Your task to perform on an android device: turn on airplane mode Image 0: 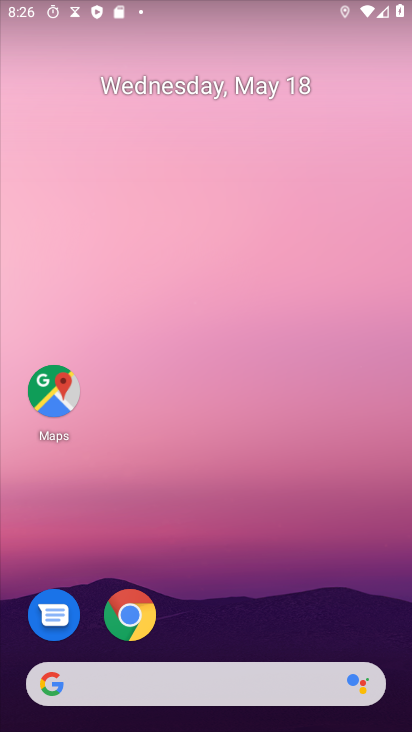
Step 0: drag from (273, 594) to (320, 83)
Your task to perform on an android device: turn on airplane mode Image 1: 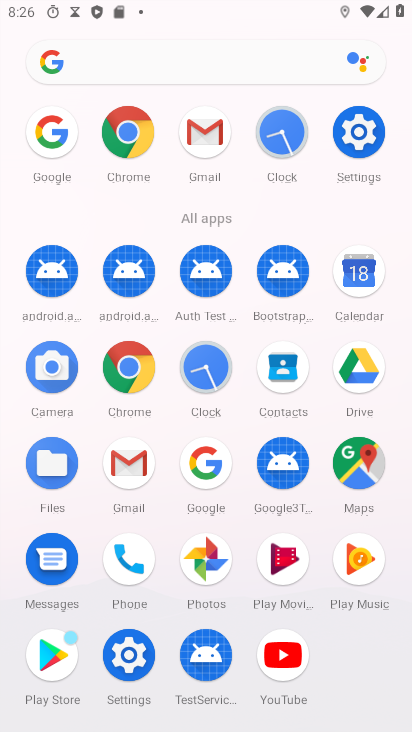
Step 1: click (357, 129)
Your task to perform on an android device: turn on airplane mode Image 2: 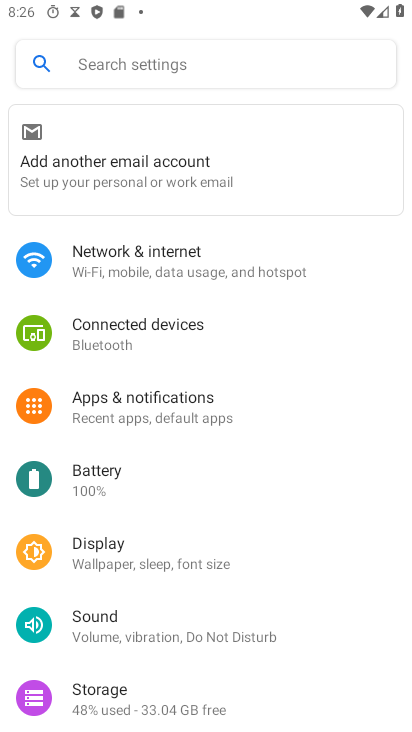
Step 2: click (195, 270)
Your task to perform on an android device: turn on airplane mode Image 3: 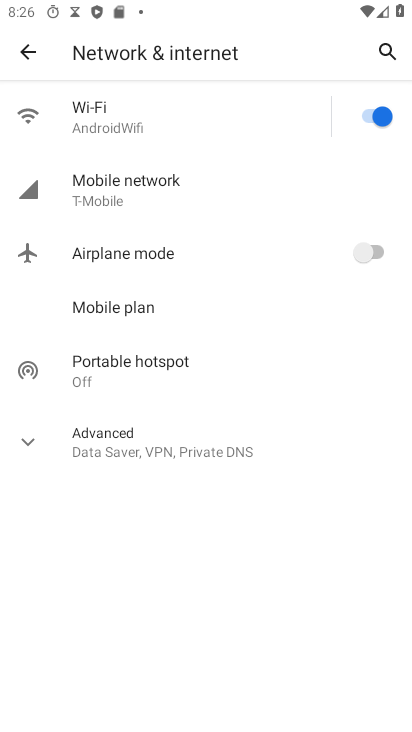
Step 3: click (375, 246)
Your task to perform on an android device: turn on airplane mode Image 4: 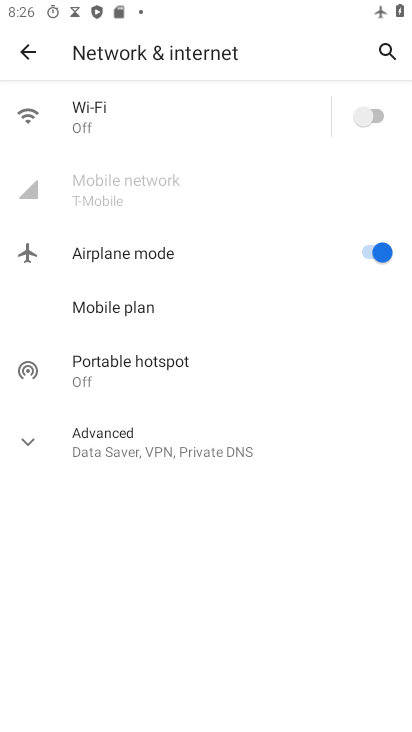
Step 4: task complete